Your task to perform on an android device: Open internet settings Image 0: 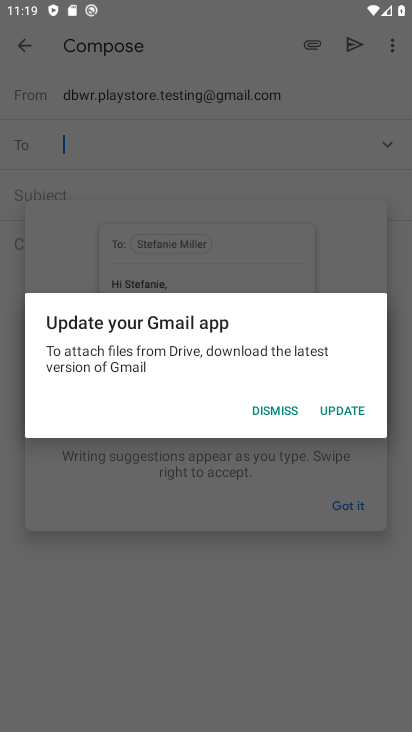
Step 0: press home button
Your task to perform on an android device: Open internet settings Image 1: 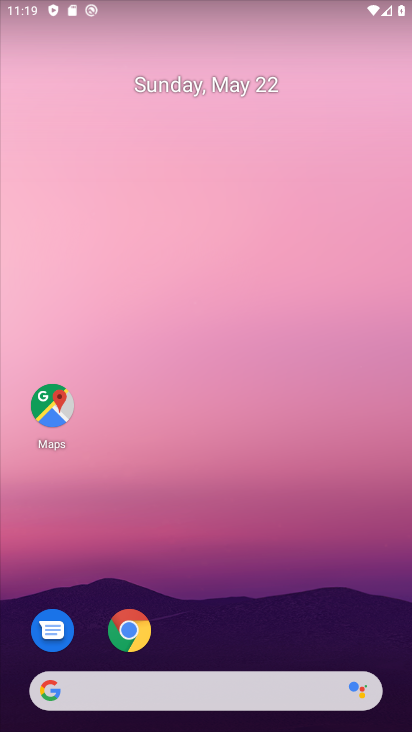
Step 1: drag from (230, 614) to (234, 514)
Your task to perform on an android device: Open internet settings Image 2: 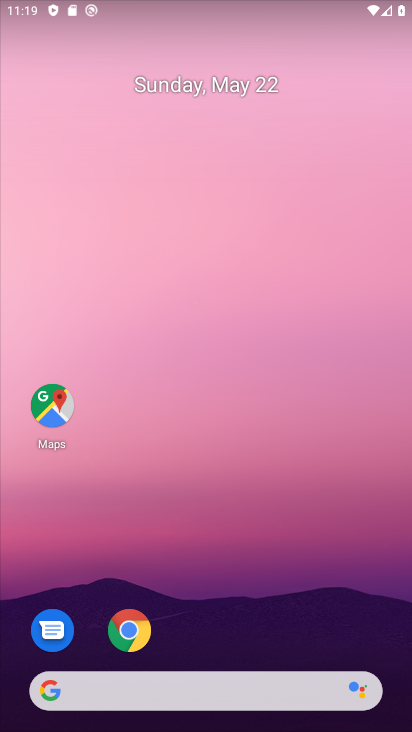
Step 2: drag from (250, 368) to (245, 32)
Your task to perform on an android device: Open internet settings Image 3: 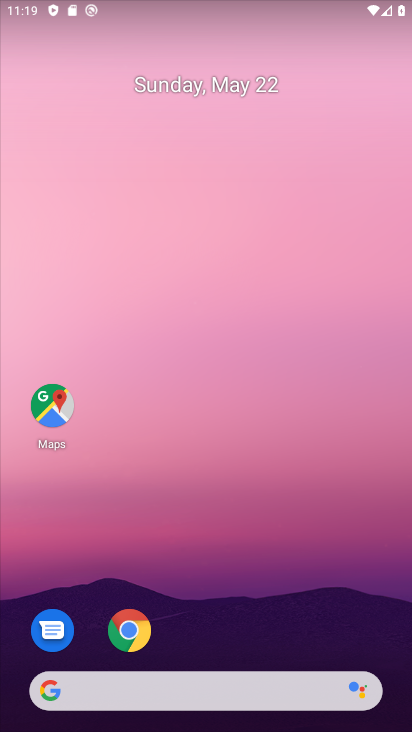
Step 3: drag from (226, 604) to (244, 3)
Your task to perform on an android device: Open internet settings Image 4: 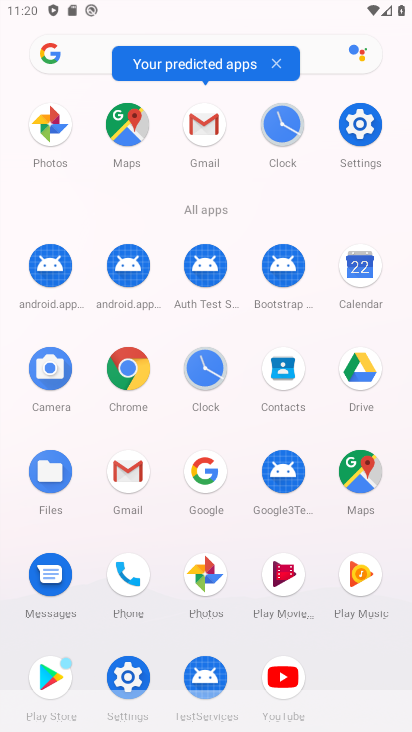
Step 4: click (366, 118)
Your task to perform on an android device: Open internet settings Image 5: 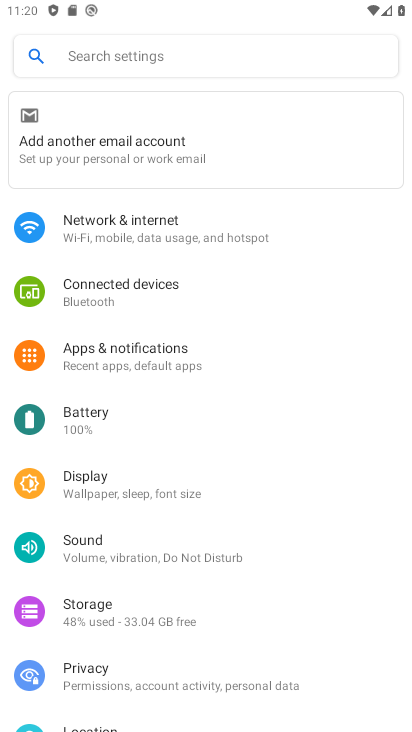
Step 5: click (109, 229)
Your task to perform on an android device: Open internet settings Image 6: 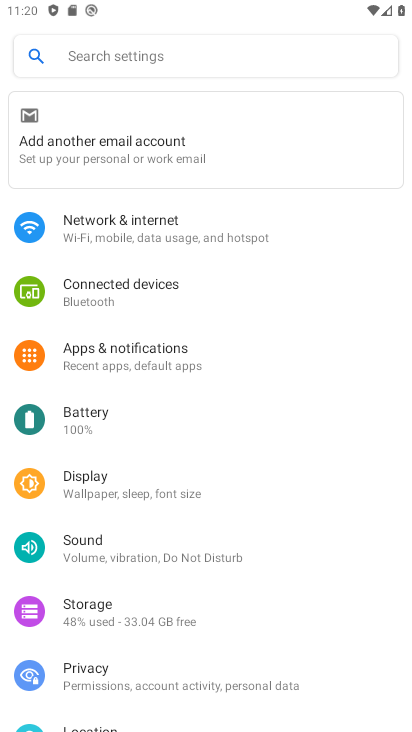
Step 6: task complete